Your task to perform on an android device: turn on showing notifications on the lock screen Image 0: 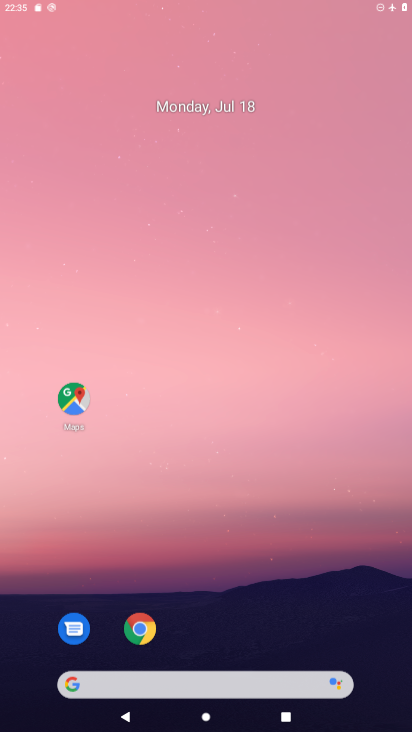
Step 0: drag from (242, 446) to (113, 5)
Your task to perform on an android device: turn on showing notifications on the lock screen Image 1: 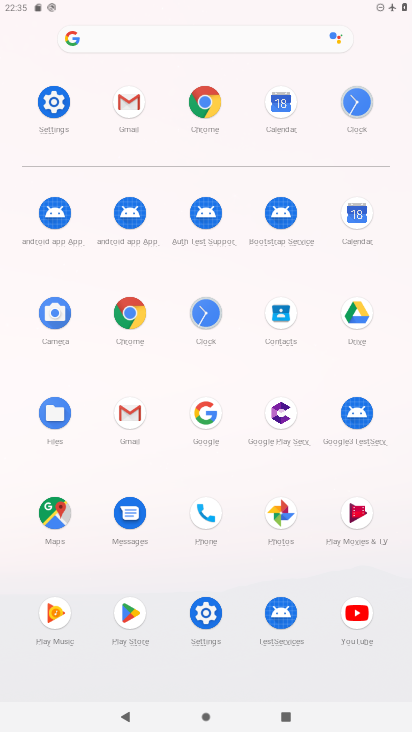
Step 1: click (198, 615)
Your task to perform on an android device: turn on showing notifications on the lock screen Image 2: 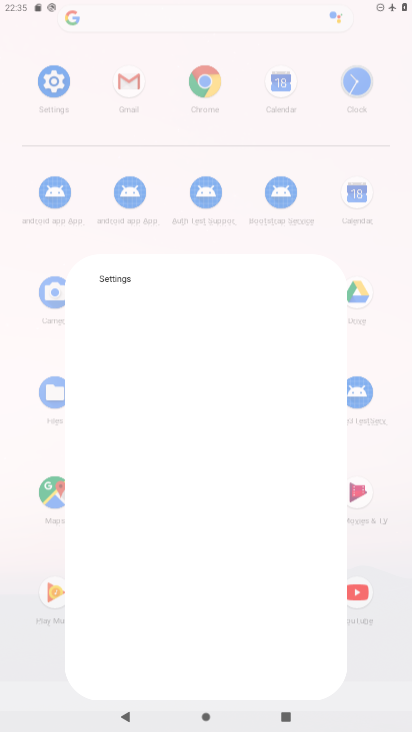
Step 2: click (200, 615)
Your task to perform on an android device: turn on showing notifications on the lock screen Image 3: 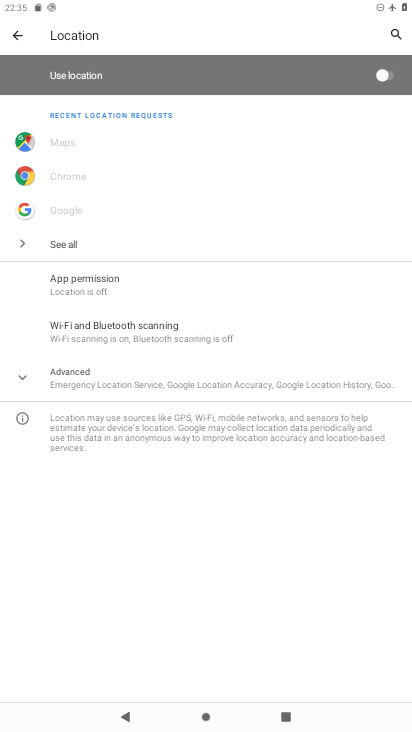
Step 3: click (14, 28)
Your task to perform on an android device: turn on showing notifications on the lock screen Image 4: 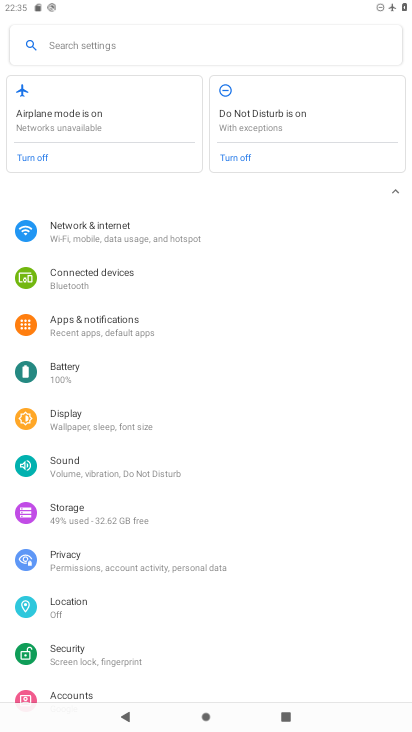
Step 4: click (138, 329)
Your task to perform on an android device: turn on showing notifications on the lock screen Image 5: 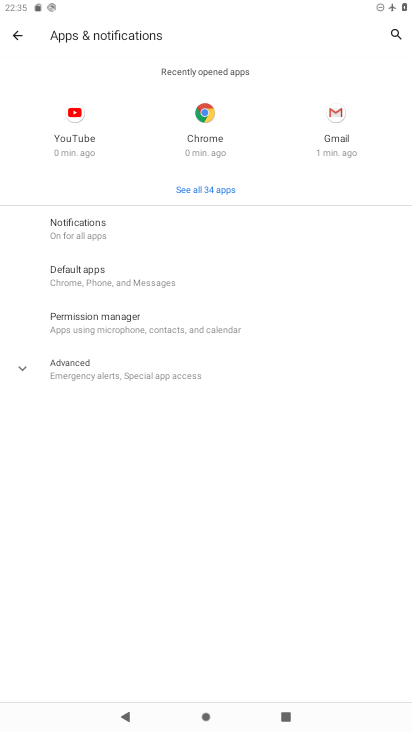
Step 5: click (115, 238)
Your task to perform on an android device: turn on showing notifications on the lock screen Image 6: 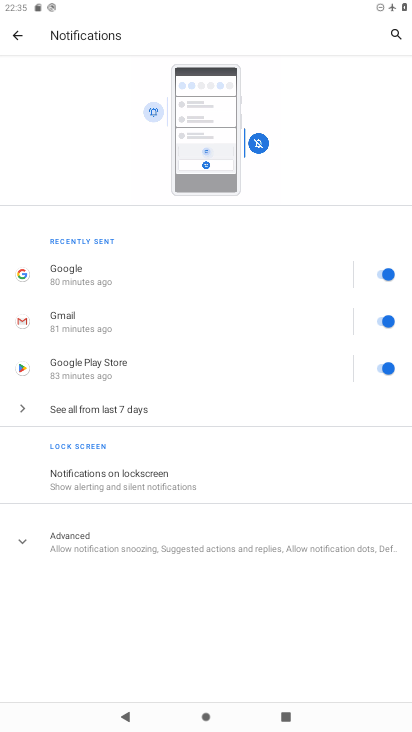
Step 6: click (176, 462)
Your task to perform on an android device: turn on showing notifications on the lock screen Image 7: 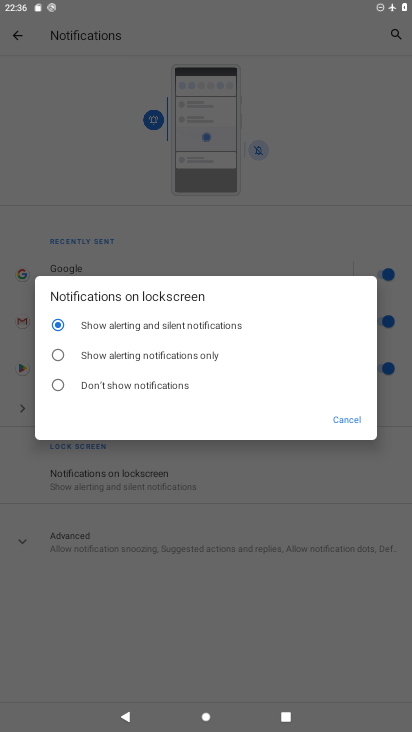
Step 7: task complete